Your task to perform on an android device: Open settings on Google Maps Image 0: 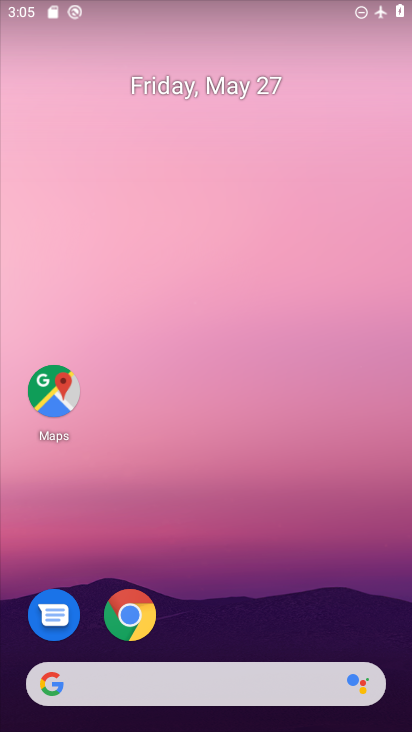
Step 0: drag from (259, 562) to (200, 721)
Your task to perform on an android device: Open settings on Google Maps Image 1: 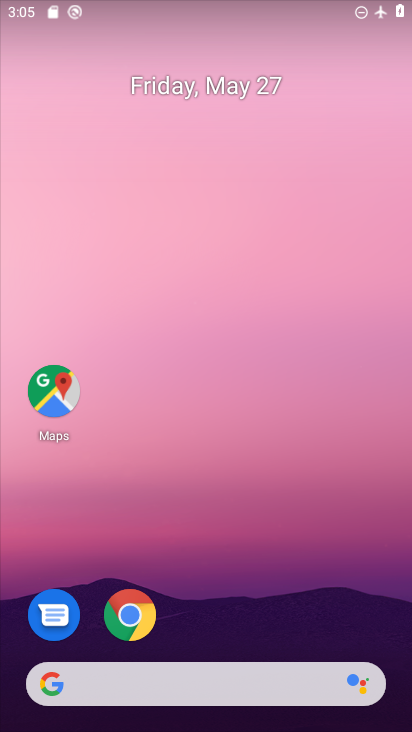
Step 1: click (58, 382)
Your task to perform on an android device: Open settings on Google Maps Image 2: 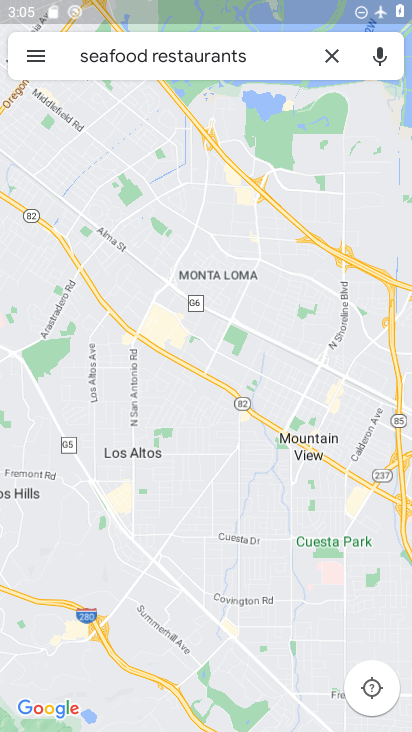
Step 2: click (41, 60)
Your task to perform on an android device: Open settings on Google Maps Image 3: 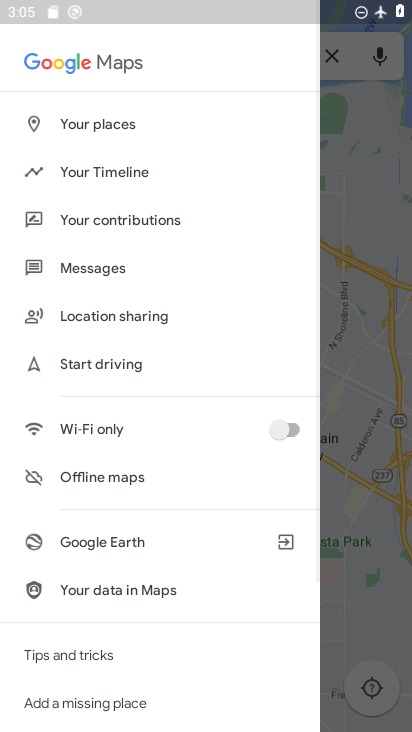
Step 3: drag from (198, 641) to (177, 136)
Your task to perform on an android device: Open settings on Google Maps Image 4: 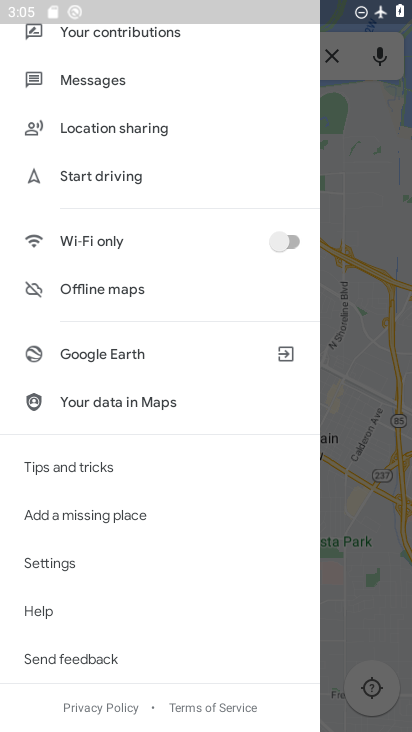
Step 4: click (102, 572)
Your task to perform on an android device: Open settings on Google Maps Image 5: 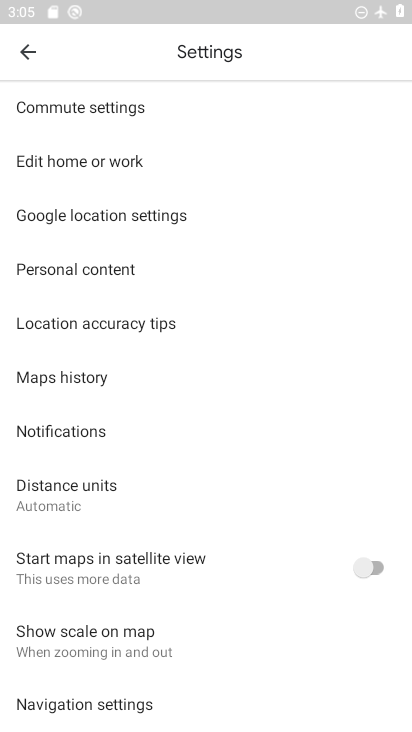
Step 5: task complete